Your task to perform on an android device: Show the shopping cart on newegg. Add "bose soundsport free" to the cart on newegg, then select checkout. Image 0: 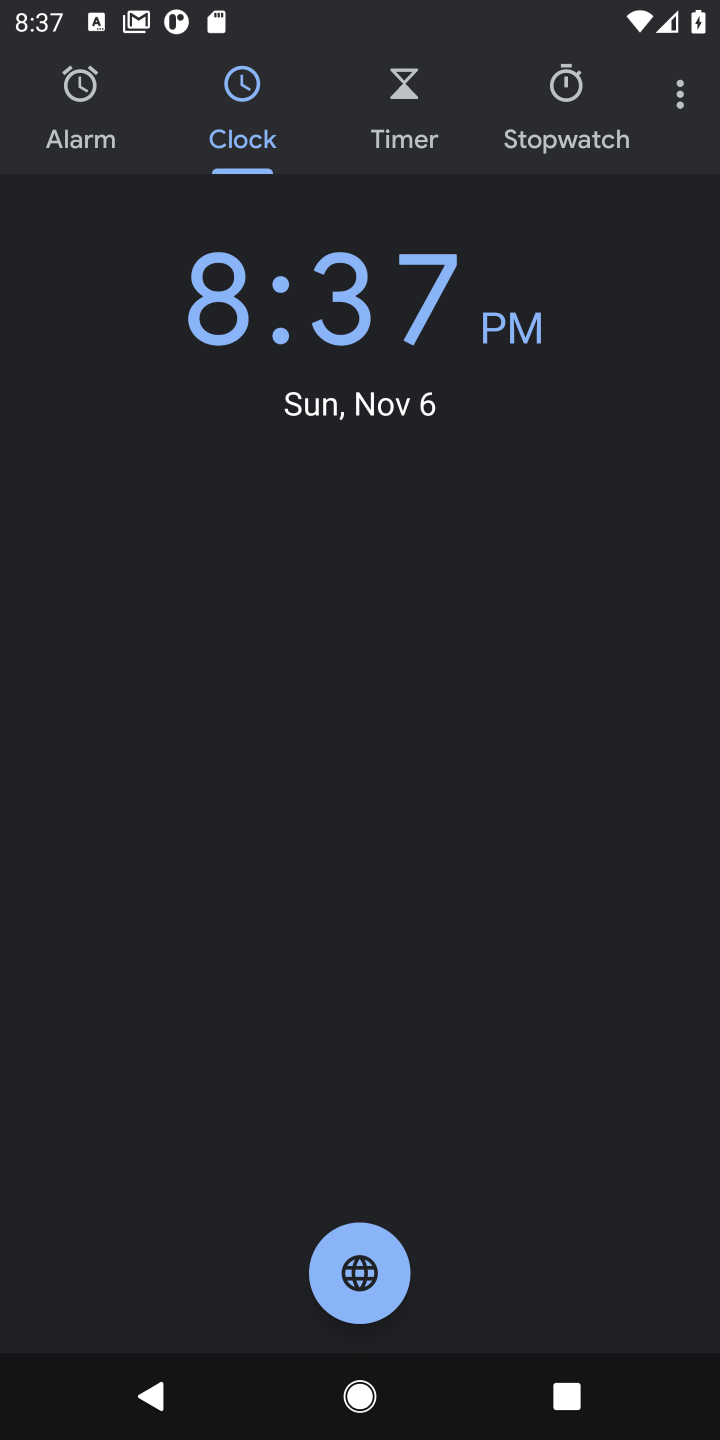
Step 0: press home button
Your task to perform on an android device: Show the shopping cart on newegg. Add "bose soundsport free" to the cart on newegg, then select checkout. Image 1: 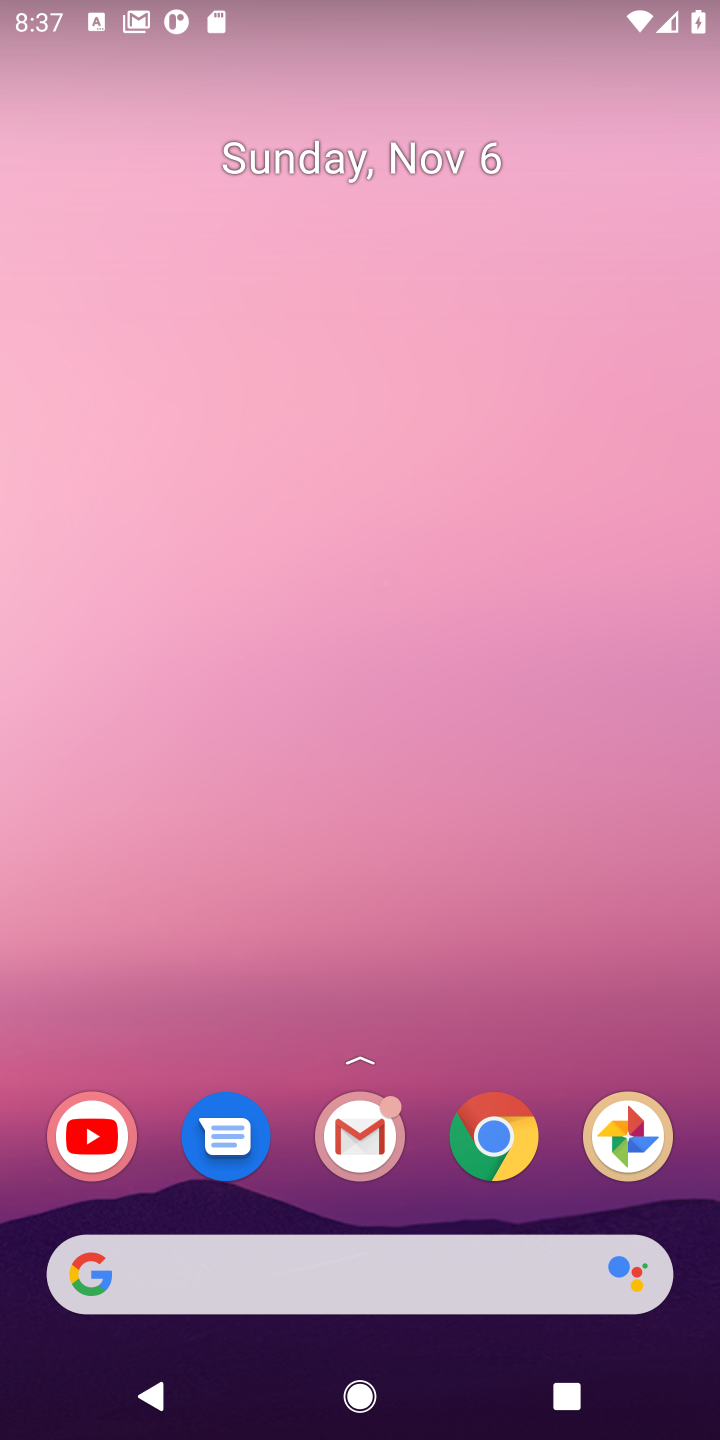
Step 1: click (412, 1269)
Your task to perform on an android device: Show the shopping cart on newegg. Add "bose soundsport free" to the cart on newegg, then select checkout. Image 2: 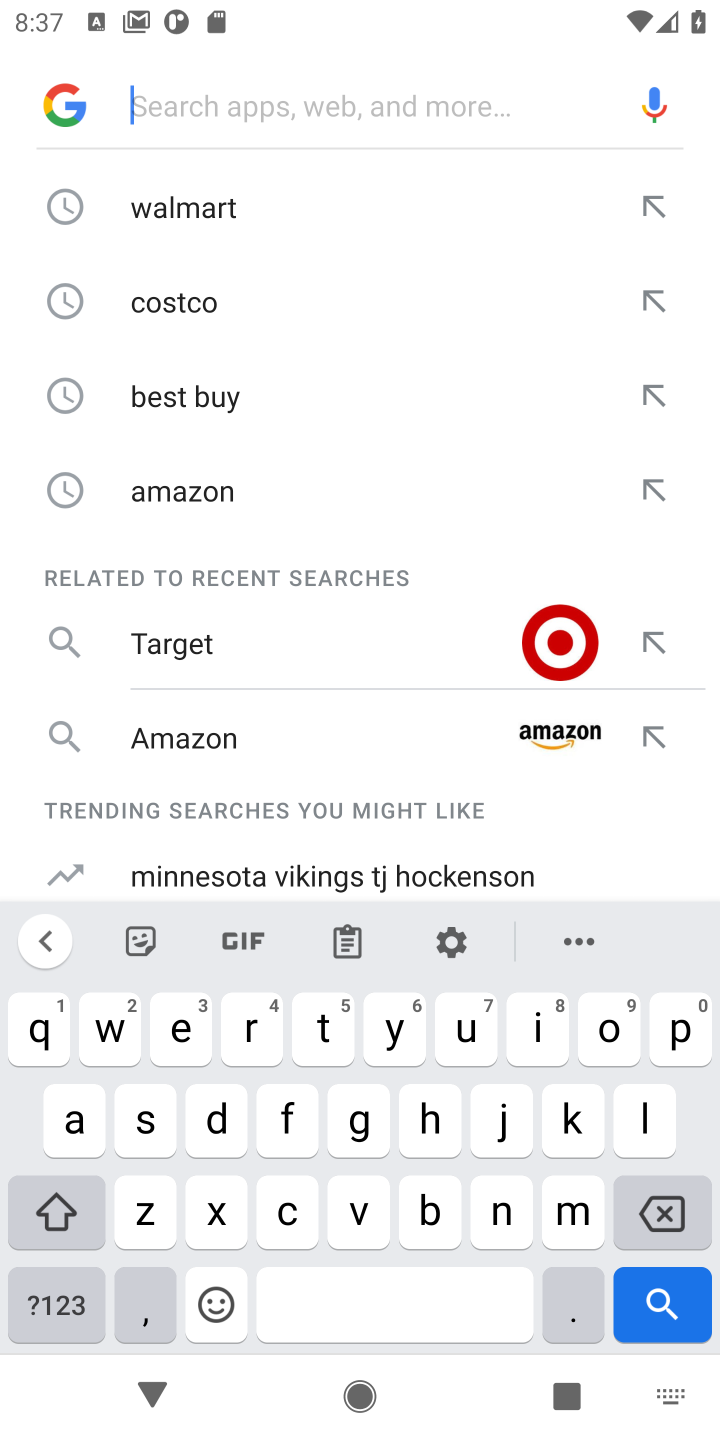
Step 2: type "neweeg"
Your task to perform on an android device: Show the shopping cart on newegg. Add "bose soundsport free" to the cart on newegg, then select checkout. Image 3: 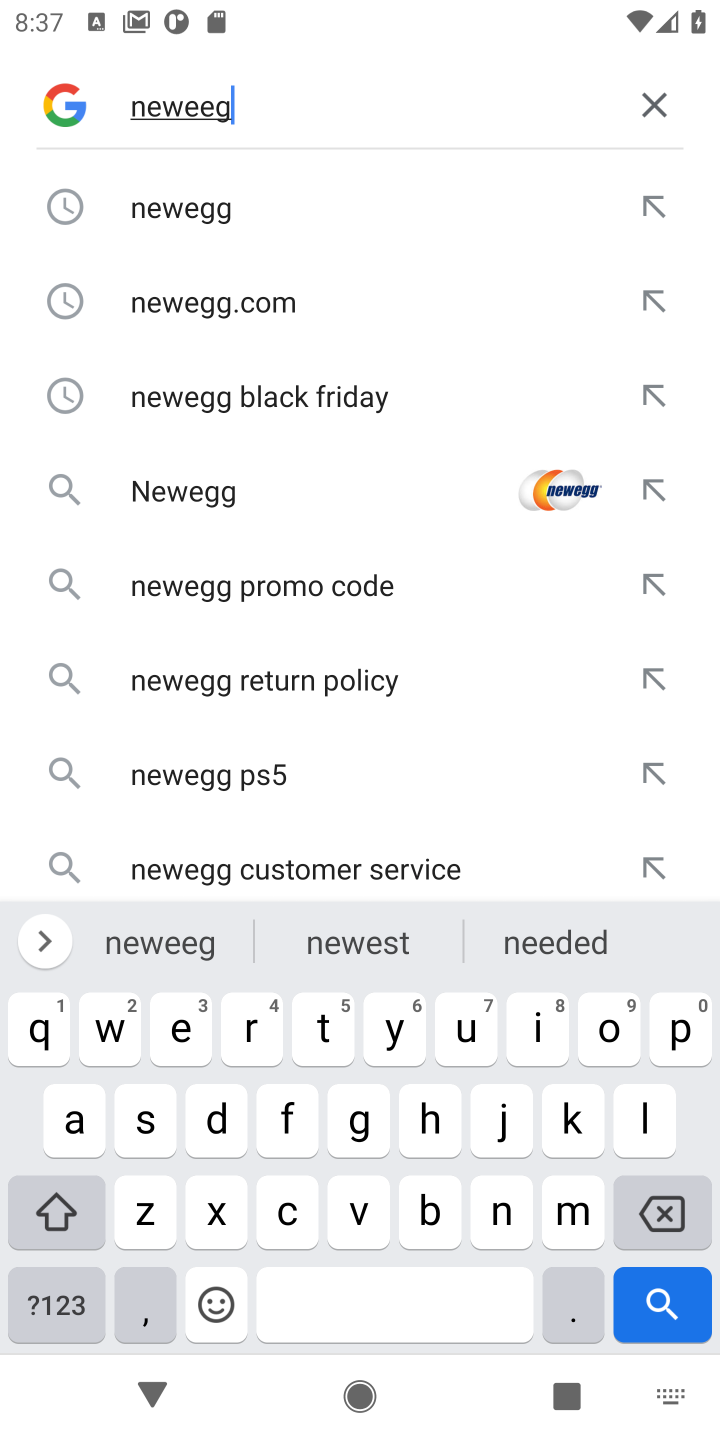
Step 3: click (386, 221)
Your task to perform on an android device: Show the shopping cart on newegg. Add "bose soundsport free" to the cart on newegg, then select checkout. Image 4: 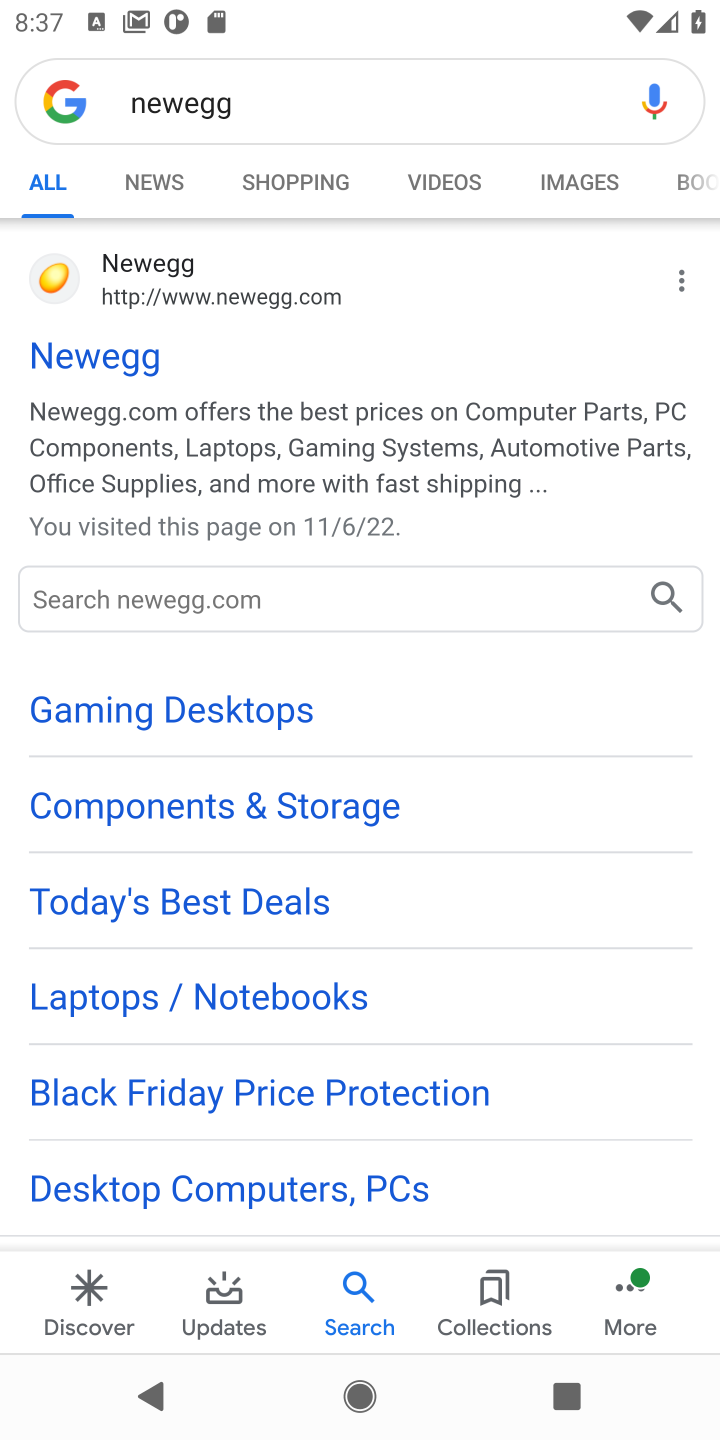
Step 4: click (62, 340)
Your task to perform on an android device: Show the shopping cart on newegg. Add "bose soundsport free" to the cart on newegg, then select checkout. Image 5: 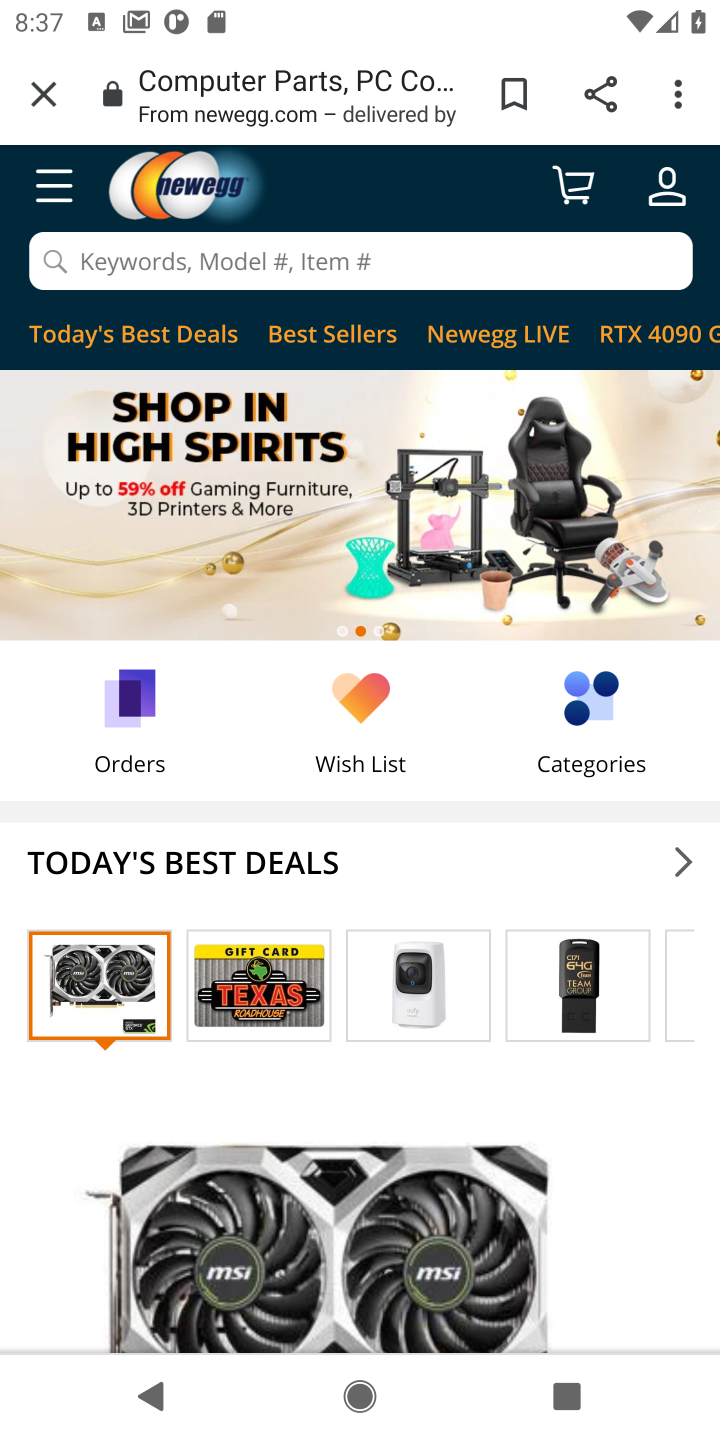
Step 5: task complete